Your task to perform on an android device: move a message to another label in the gmail app Image 0: 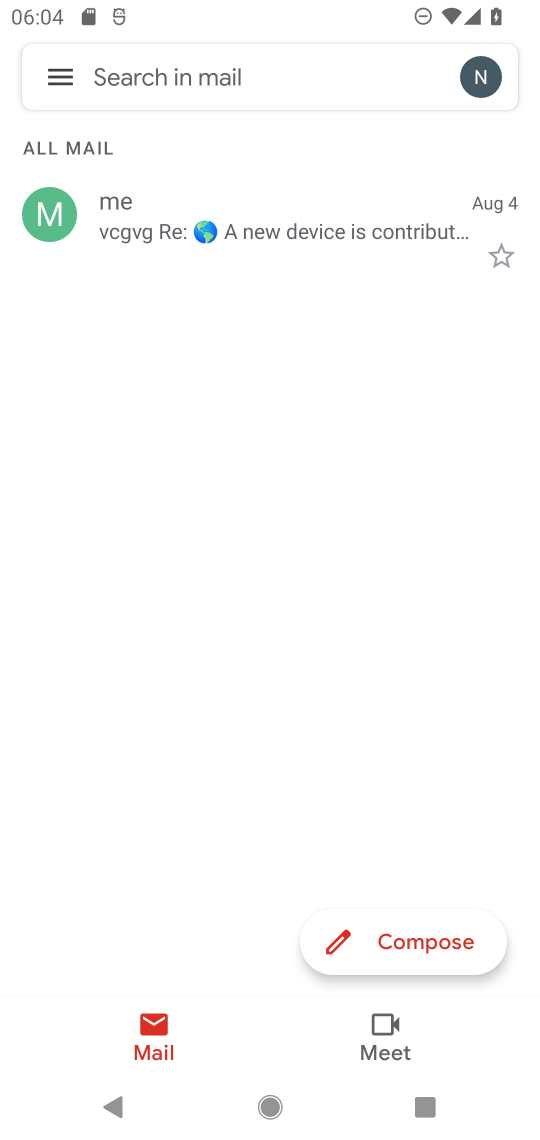
Step 0: click (61, 82)
Your task to perform on an android device: move a message to another label in the gmail app Image 1: 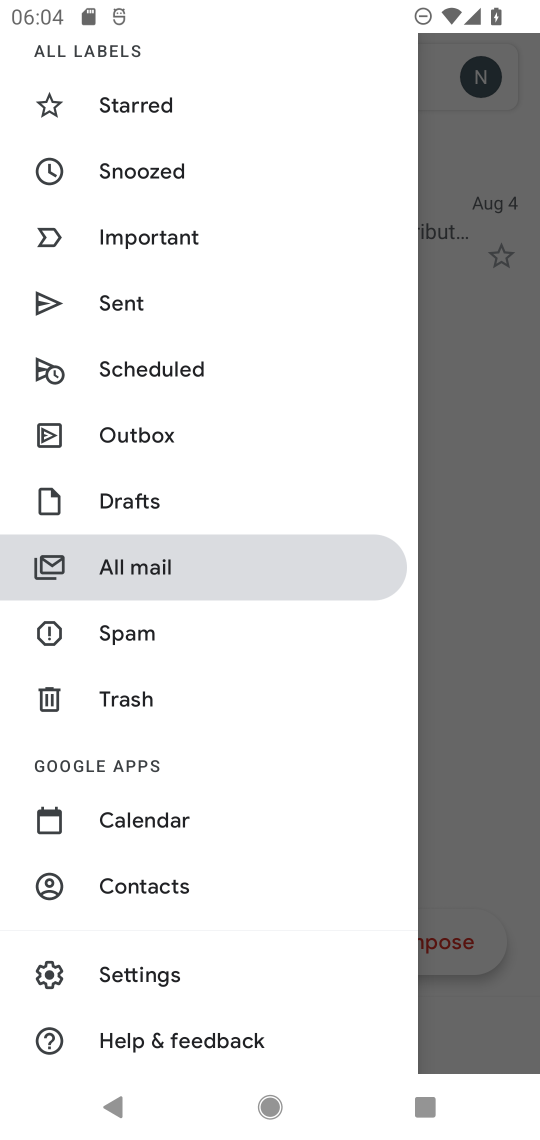
Step 1: drag from (166, 138) to (166, 603)
Your task to perform on an android device: move a message to another label in the gmail app Image 2: 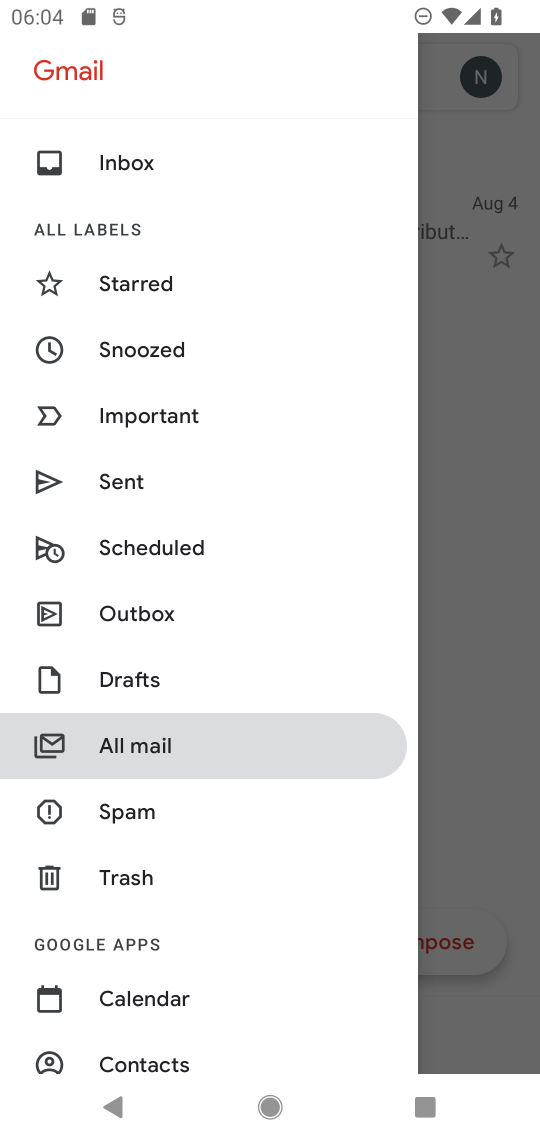
Step 2: click (131, 169)
Your task to perform on an android device: move a message to another label in the gmail app Image 3: 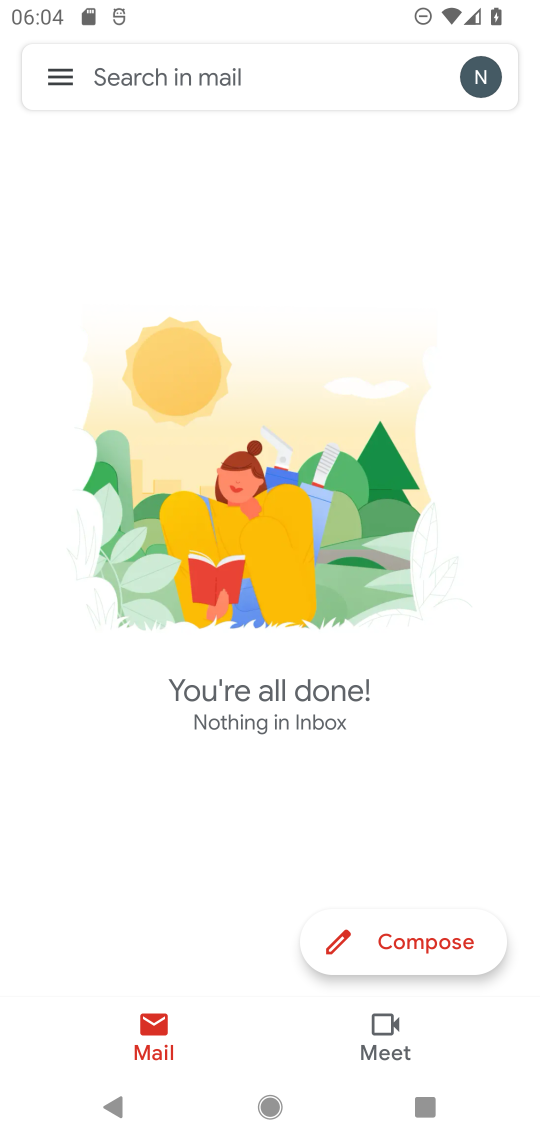
Step 3: task complete